Your task to perform on an android device: Open Chrome and go to settings Image 0: 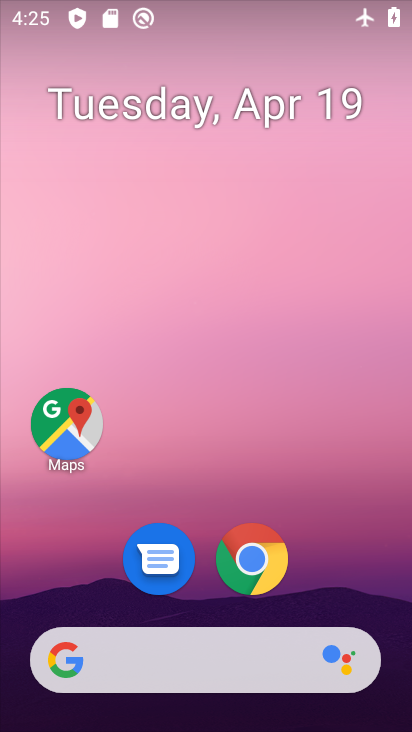
Step 0: click (242, 555)
Your task to perform on an android device: Open Chrome and go to settings Image 1: 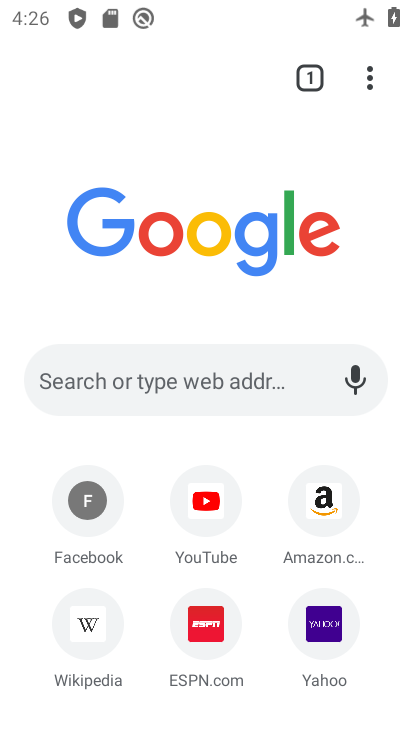
Step 1: click (362, 83)
Your task to perform on an android device: Open Chrome and go to settings Image 2: 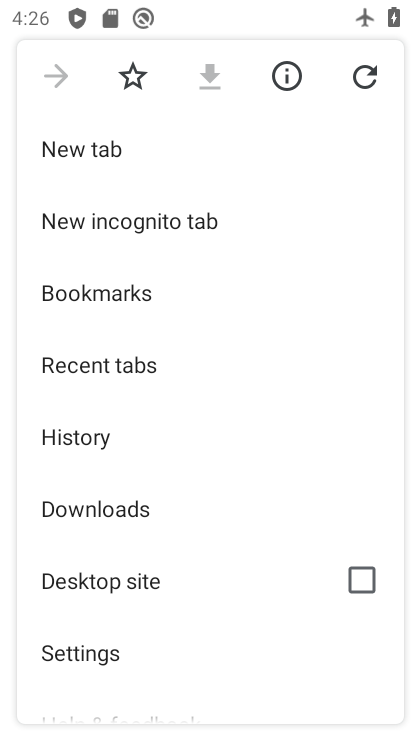
Step 2: click (223, 648)
Your task to perform on an android device: Open Chrome and go to settings Image 3: 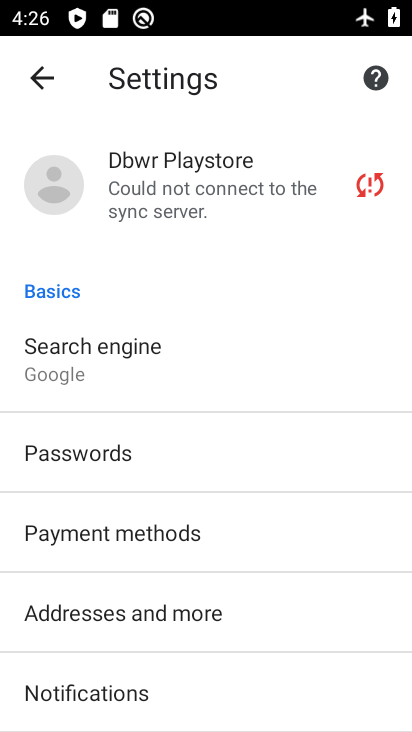
Step 3: task complete